Your task to perform on an android device: turn on the 12-hour format for clock Image 0: 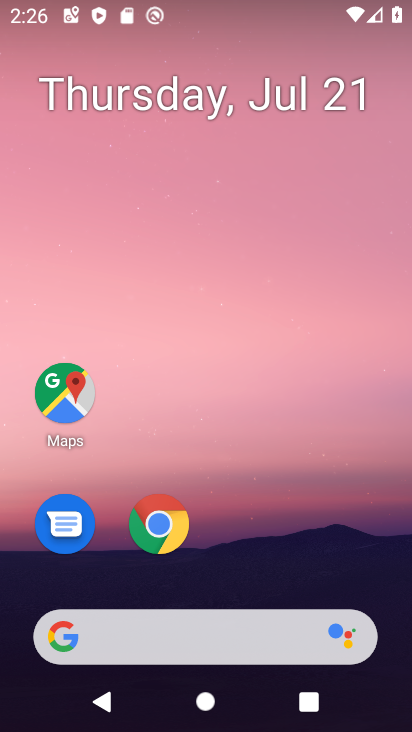
Step 0: drag from (298, 543) to (348, 53)
Your task to perform on an android device: turn on the 12-hour format for clock Image 1: 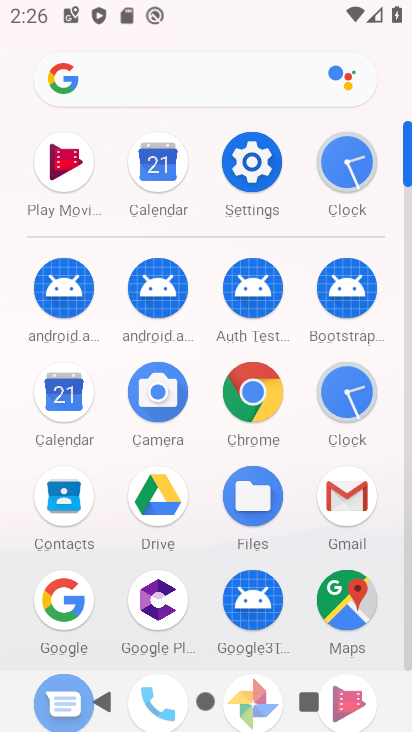
Step 1: click (351, 156)
Your task to perform on an android device: turn on the 12-hour format for clock Image 2: 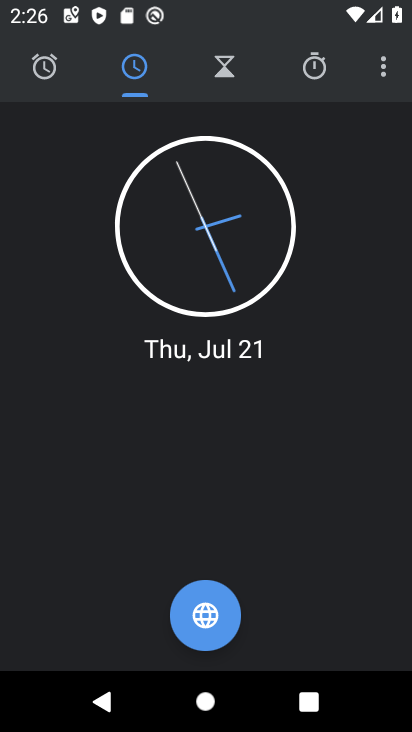
Step 2: click (389, 70)
Your task to perform on an android device: turn on the 12-hour format for clock Image 3: 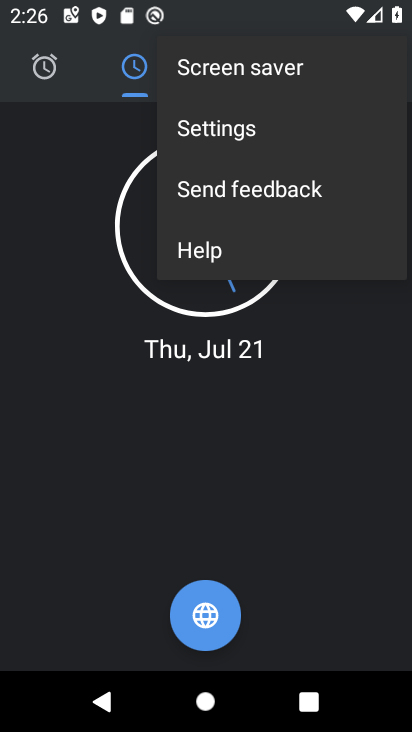
Step 3: click (260, 126)
Your task to perform on an android device: turn on the 12-hour format for clock Image 4: 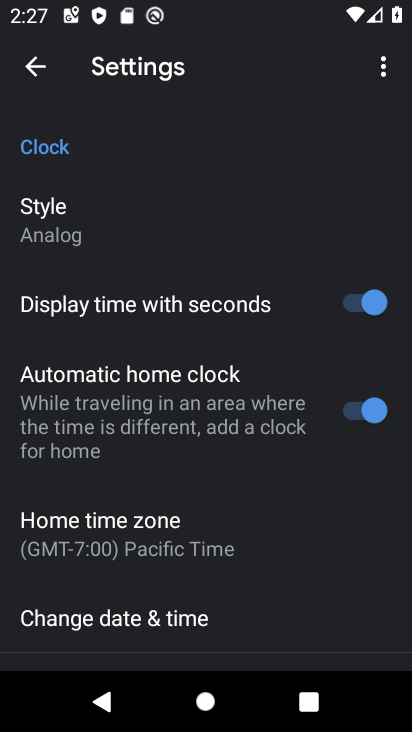
Step 4: click (220, 618)
Your task to perform on an android device: turn on the 12-hour format for clock Image 5: 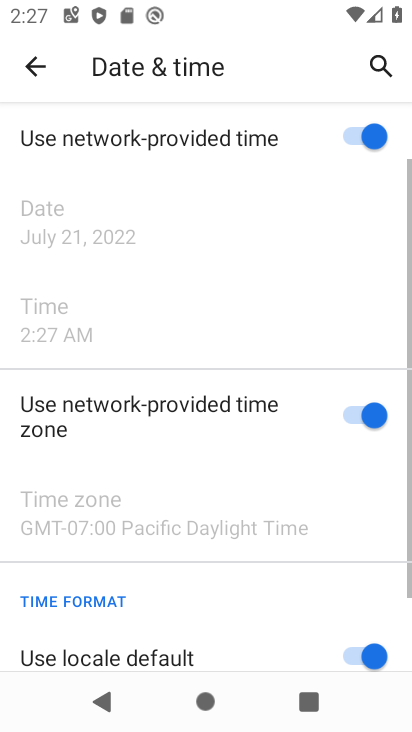
Step 5: task complete